Your task to perform on an android device: toggle airplane mode Image 0: 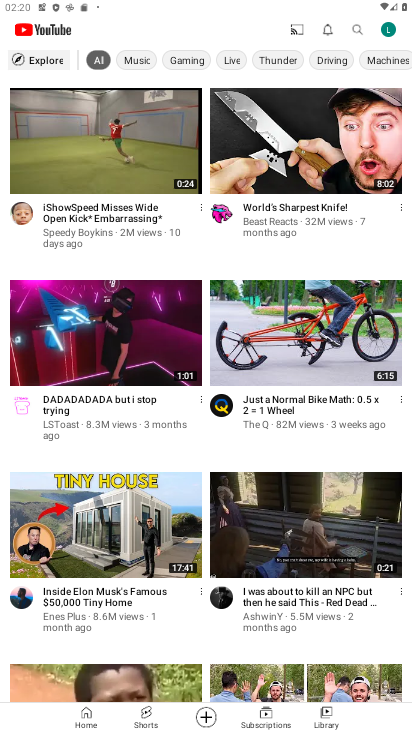
Step 0: press home button
Your task to perform on an android device: toggle airplane mode Image 1: 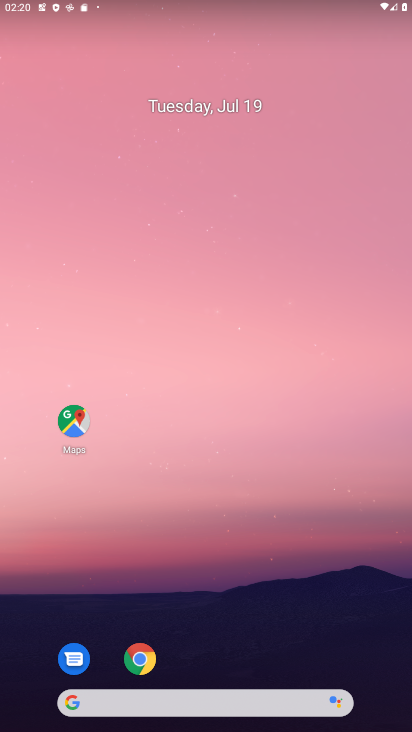
Step 1: drag from (384, 12) to (322, 547)
Your task to perform on an android device: toggle airplane mode Image 2: 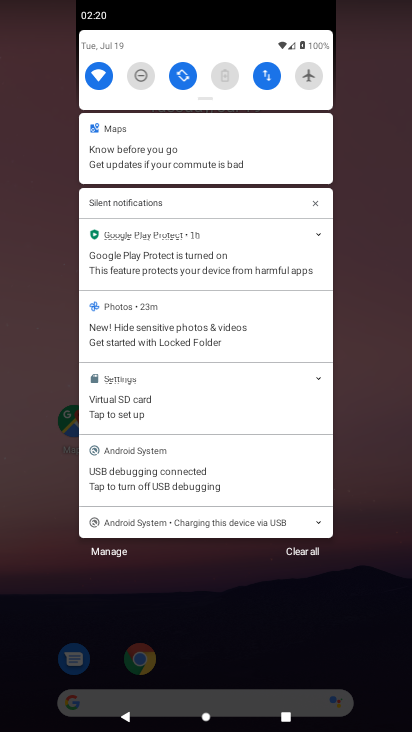
Step 2: click (313, 89)
Your task to perform on an android device: toggle airplane mode Image 3: 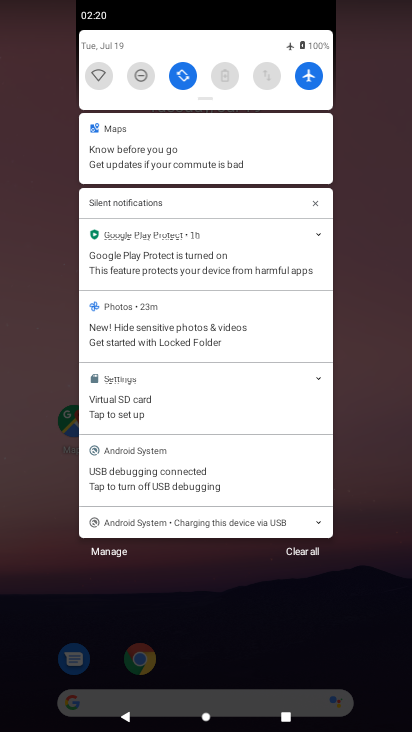
Step 3: task complete